Your task to perform on an android device: Open Google Chrome and click the shortcut for Amazon.com Image 0: 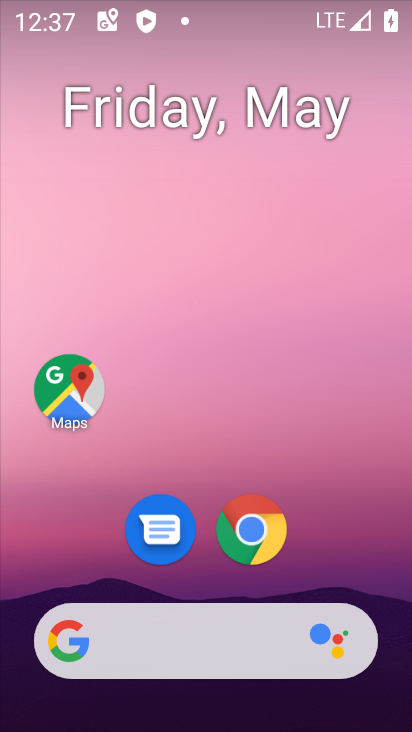
Step 0: click (288, 529)
Your task to perform on an android device: Open Google Chrome and click the shortcut for Amazon.com Image 1: 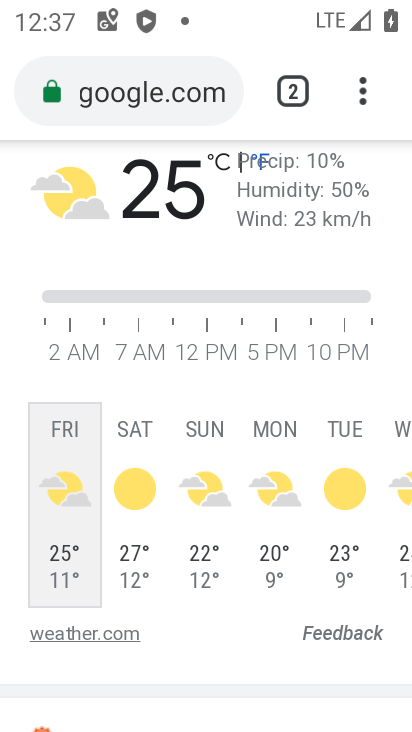
Step 1: click (289, 95)
Your task to perform on an android device: Open Google Chrome and click the shortcut for Amazon.com Image 2: 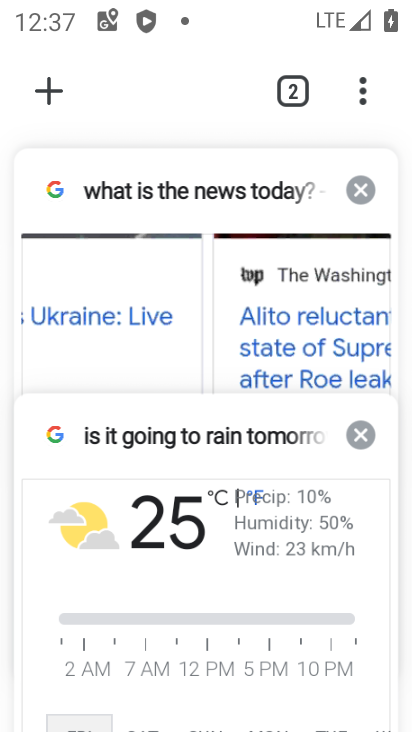
Step 2: click (45, 91)
Your task to perform on an android device: Open Google Chrome and click the shortcut for Amazon.com Image 3: 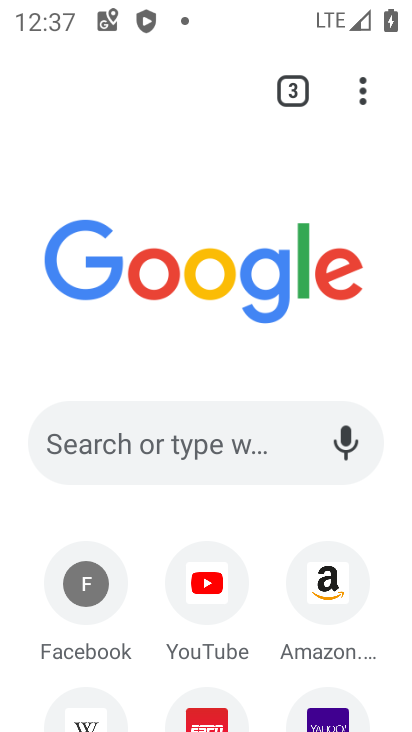
Step 3: click (312, 593)
Your task to perform on an android device: Open Google Chrome and click the shortcut for Amazon.com Image 4: 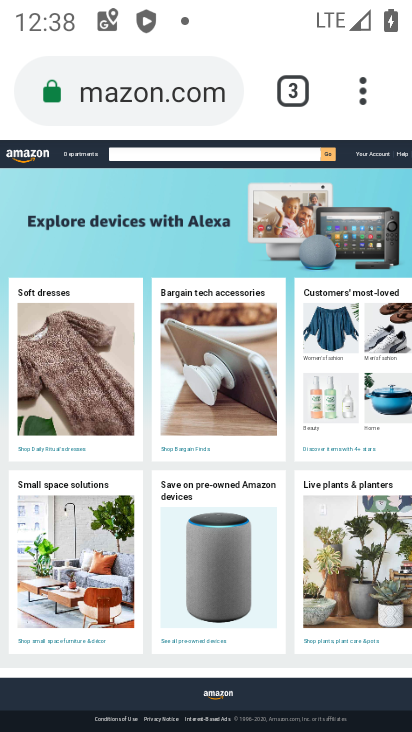
Step 4: task complete